Your task to perform on an android device: choose inbox layout in the gmail app Image 0: 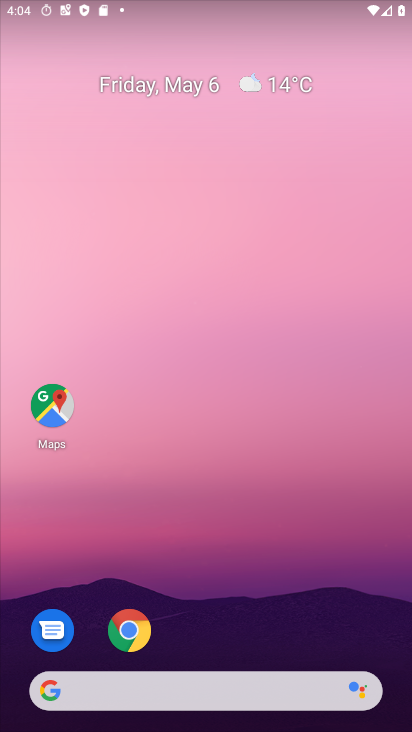
Step 0: drag from (179, 656) to (322, 309)
Your task to perform on an android device: choose inbox layout in the gmail app Image 1: 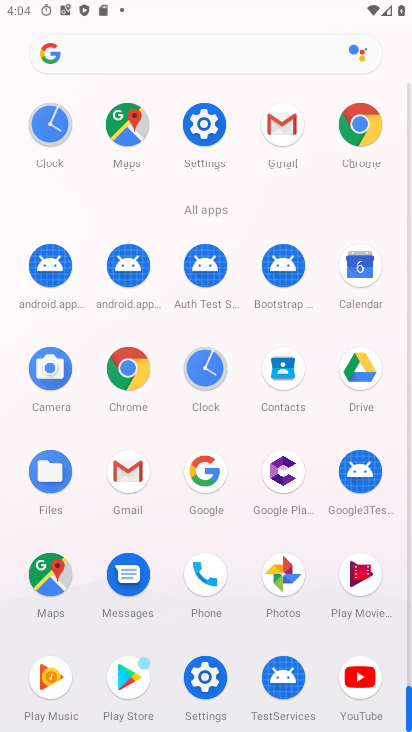
Step 1: click (276, 134)
Your task to perform on an android device: choose inbox layout in the gmail app Image 2: 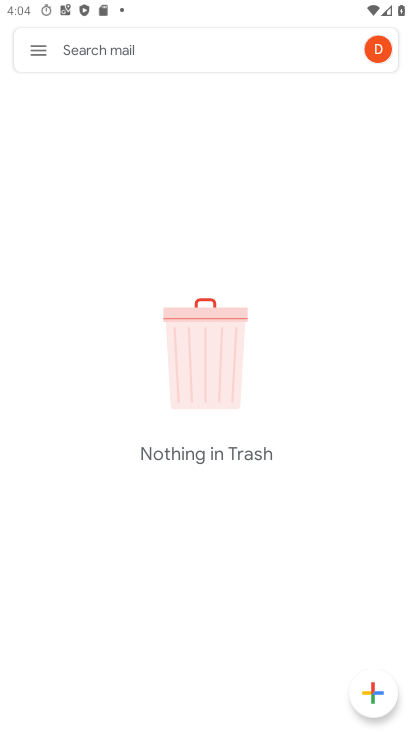
Step 2: click (34, 51)
Your task to perform on an android device: choose inbox layout in the gmail app Image 3: 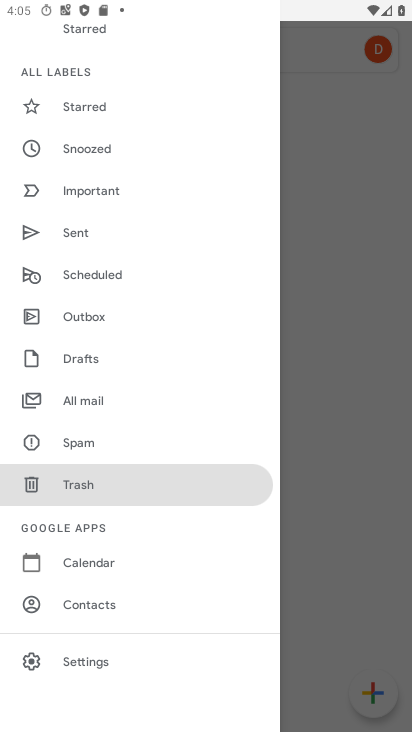
Step 3: click (89, 682)
Your task to perform on an android device: choose inbox layout in the gmail app Image 4: 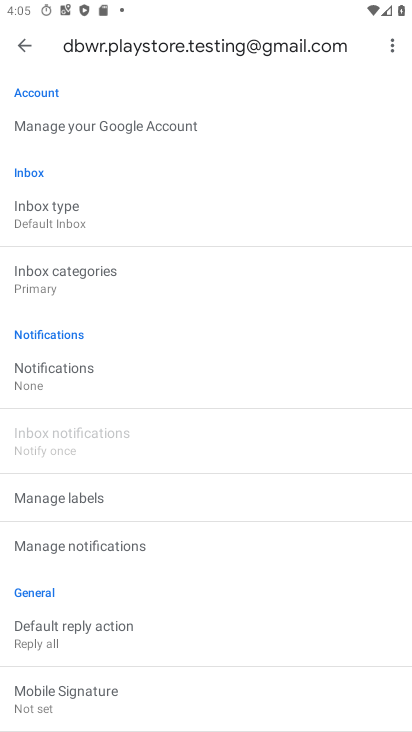
Step 4: click (188, 223)
Your task to perform on an android device: choose inbox layout in the gmail app Image 5: 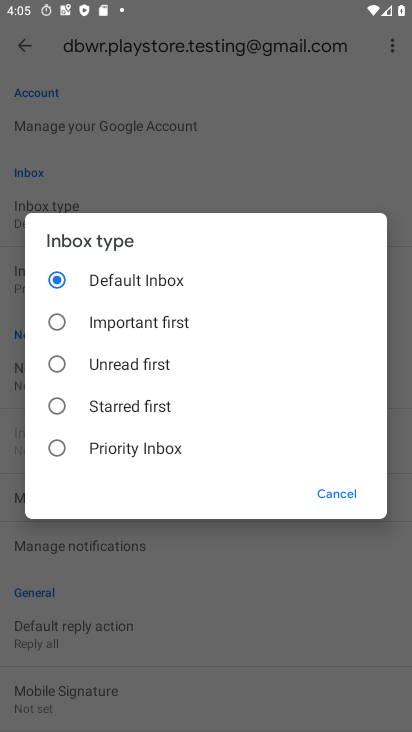
Step 5: click (143, 342)
Your task to perform on an android device: choose inbox layout in the gmail app Image 6: 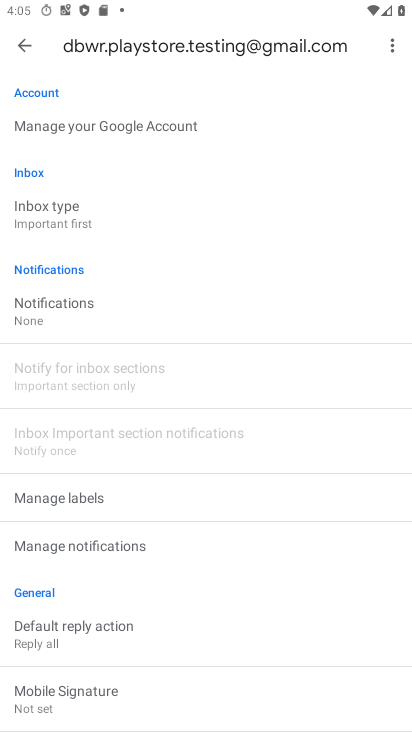
Step 6: task complete